Your task to perform on an android device: See recent photos Image 0: 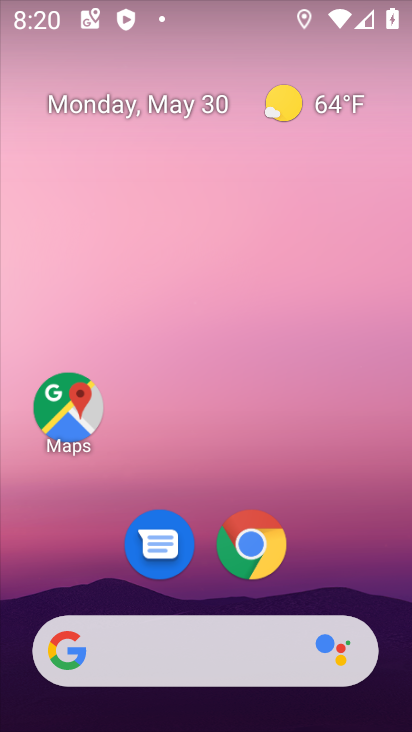
Step 0: drag from (217, 598) to (104, 15)
Your task to perform on an android device: See recent photos Image 1: 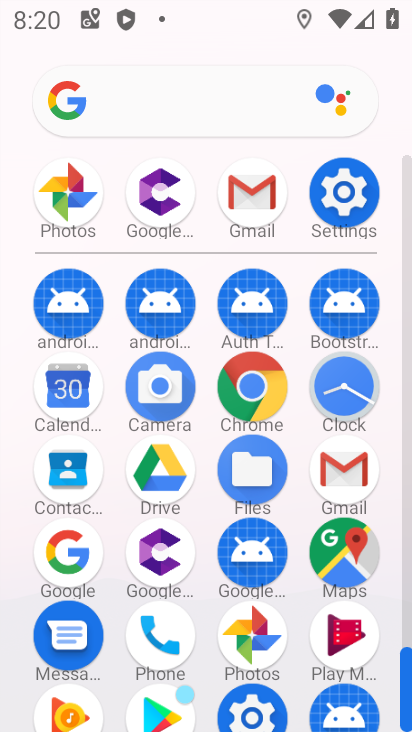
Step 1: click (70, 199)
Your task to perform on an android device: See recent photos Image 2: 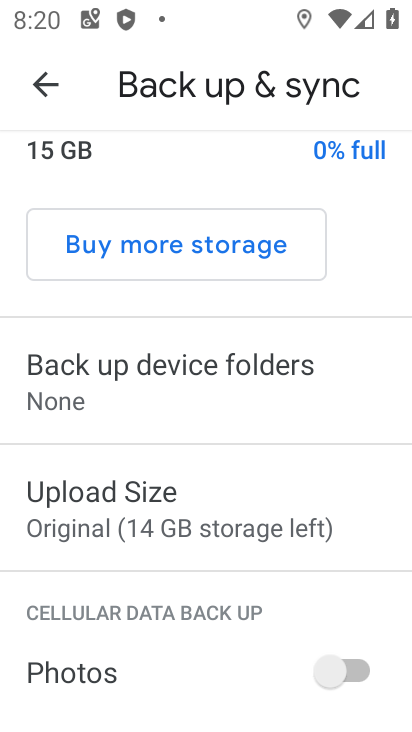
Step 2: click (36, 94)
Your task to perform on an android device: See recent photos Image 3: 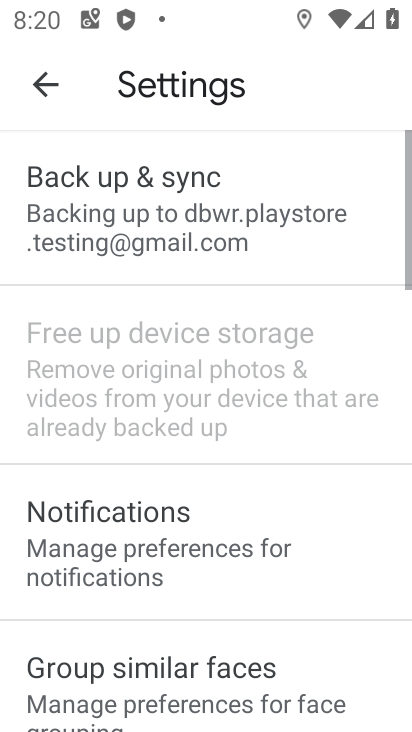
Step 3: click (34, 92)
Your task to perform on an android device: See recent photos Image 4: 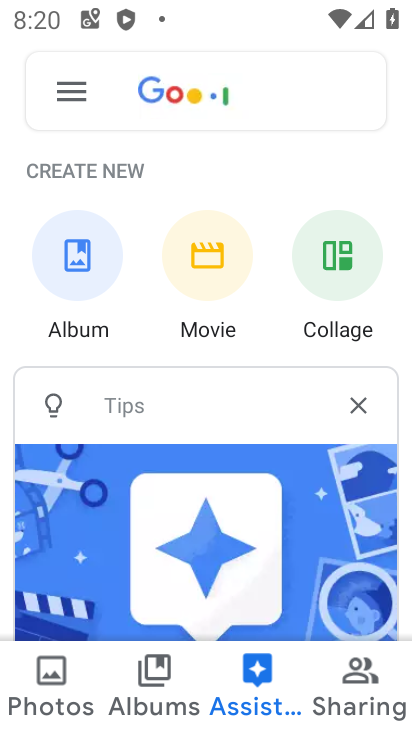
Step 4: click (38, 693)
Your task to perform on an android device: See recent photos Image 5: 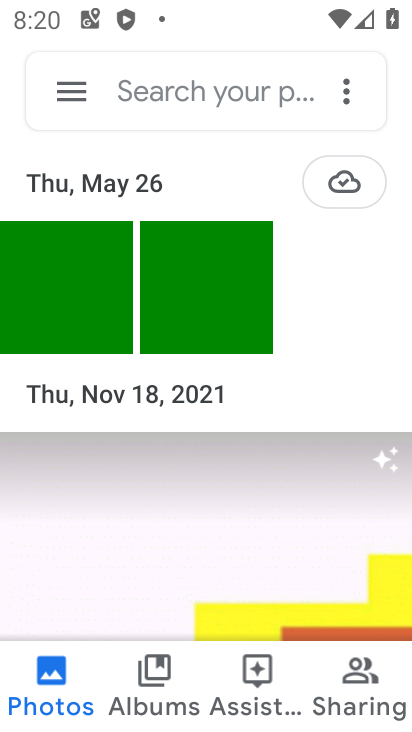
Step 5: click (68, 688)
Your task to perform on an android device: See recent photos Image 6: 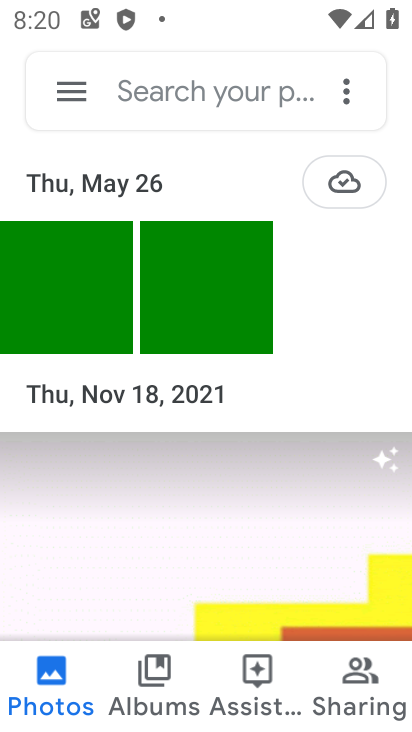
Step 6: task complete